Your task to perform on an android device: turn off sleep mode Image 0: 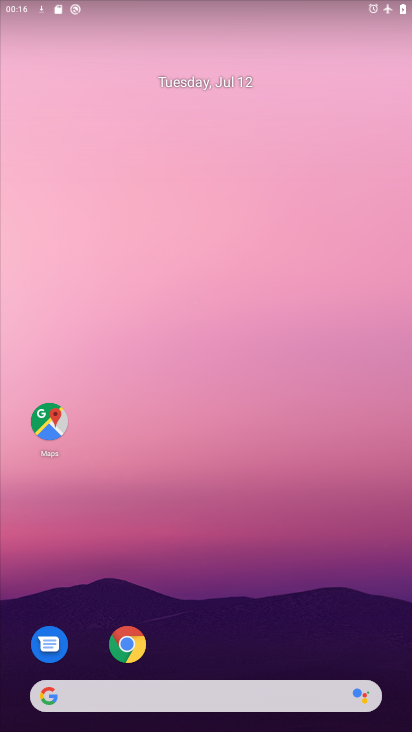
Step 0: drag from (231, 605) to (234, 308)
Your task to perform on an android device: turn off sleep mode Image 1: 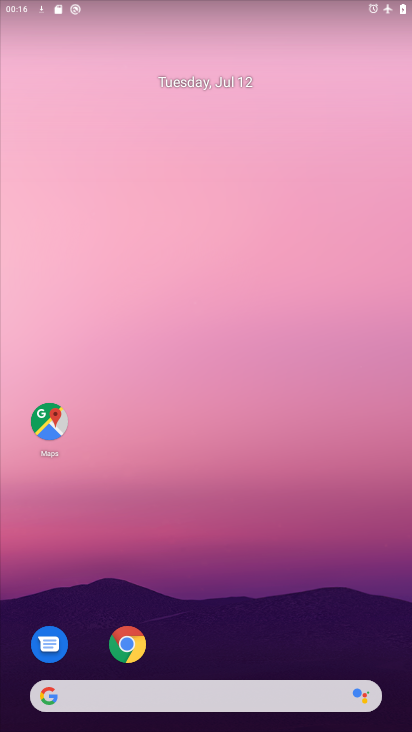
Step 1: drag from (199, 599) to (209, 252)
Your task to perform on an android device: turn off sleep mode Image 2: 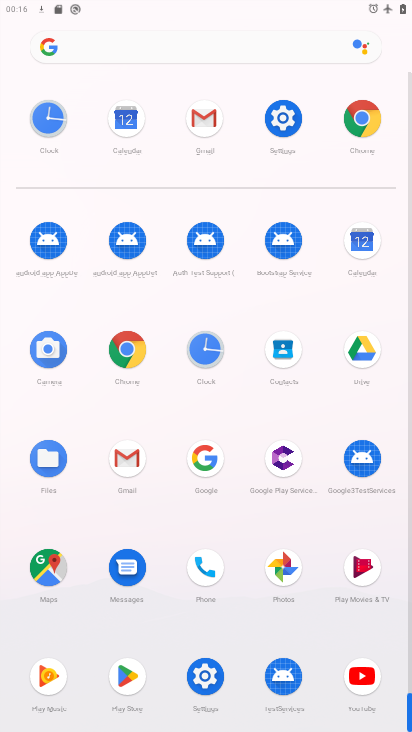
Step 2: click (281, 111)
Your task to perform on an android device: turn off sleep mode Image 3: 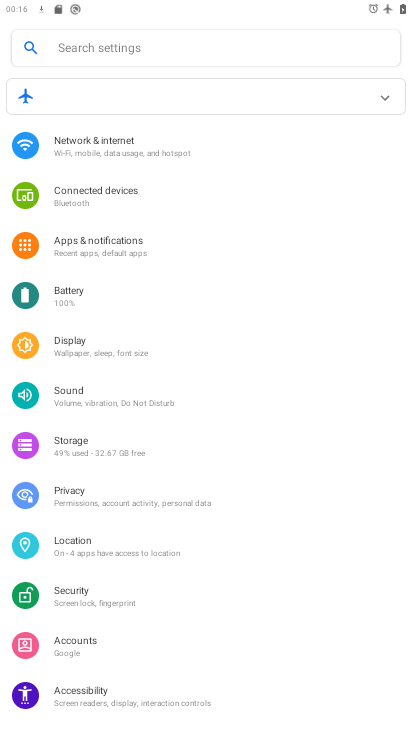
Step 3: task complete